Your task to perform on an android device: Open Youtube and go to "Your channel" Image 0: 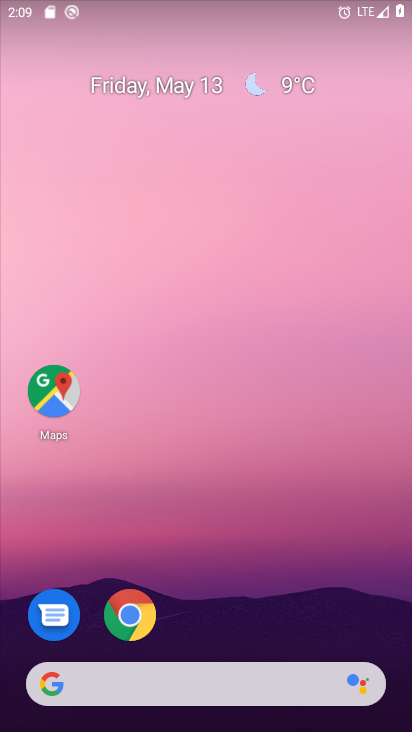
Step 0: drag from (313, 597) to (307, 169)
Your task to perform on an android device: Open Youtube and go to "Your channel" Image 1: 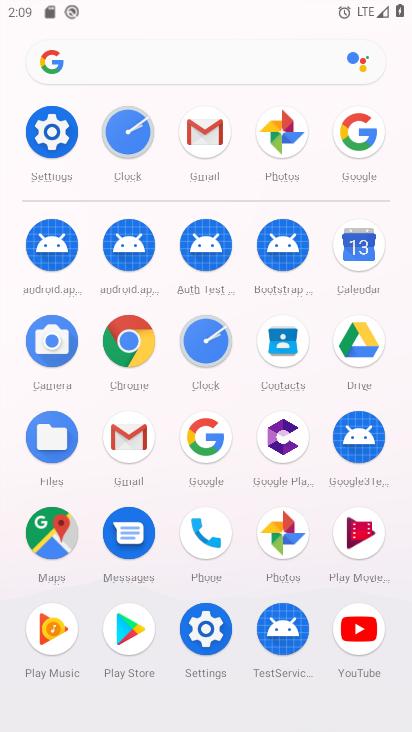
Step 1: click (347, 617)
Your task to perform on an android device: Open Youtube and go to "Your channel" Image 2: 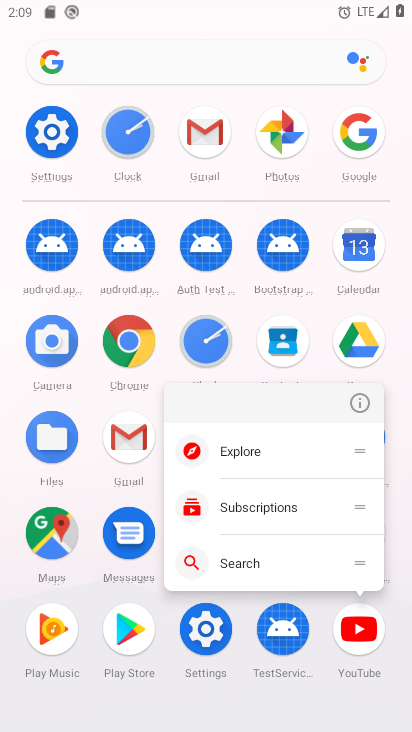
Step 2: click (369, 616)
Your task to perform on an android device: Open Youtube and go to "Your channel" Image 3: 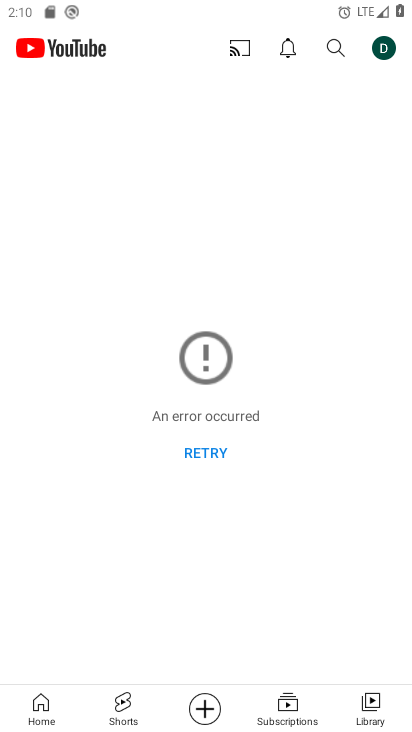
Step 3: click (381, 52)
Your task to perform on an android device: Open Youtube and go to "Your channel" Image 4: 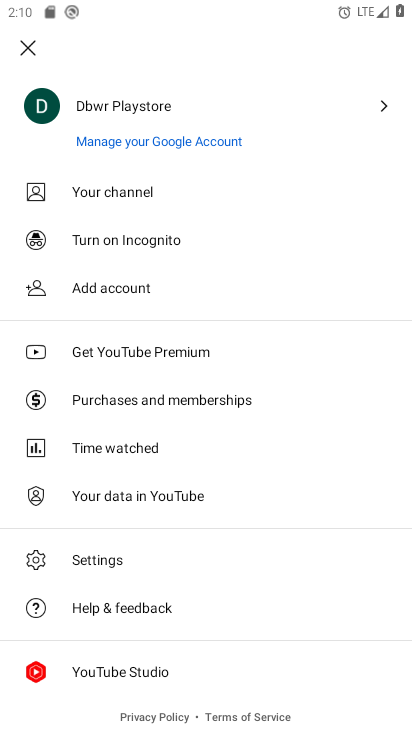
Step 4: click (164, 190)
Your task to perform on an android device: Open Youtube and go to "Your channel" Image 5: 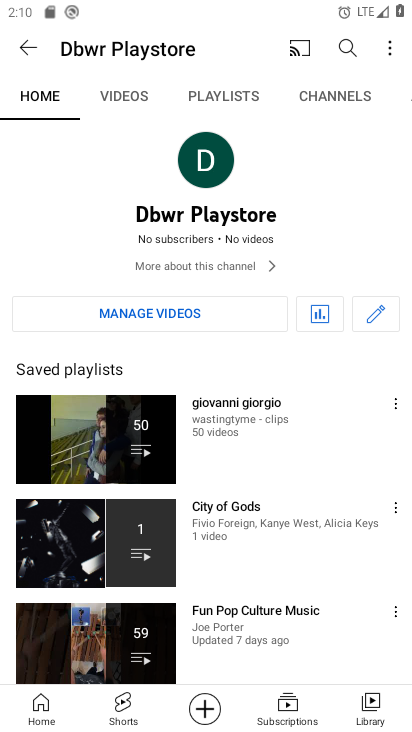
Step 5: task complete